Your task to perform on an android device: toggle pop-ups in chrome Image 0: 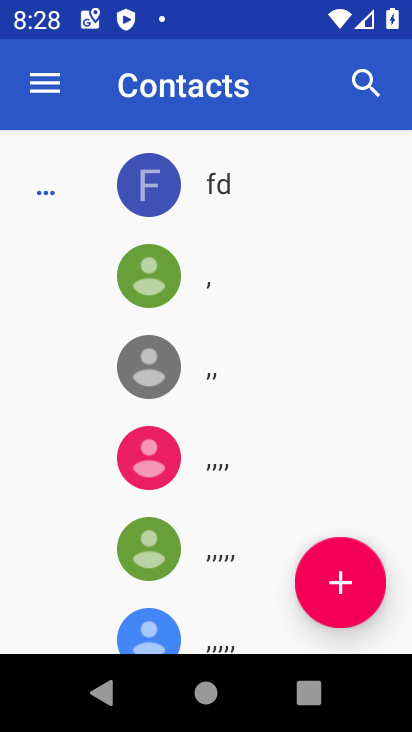
Step 0: press home button
Your task to perform on an android device: toggle pop-ups in chrome Image 1: 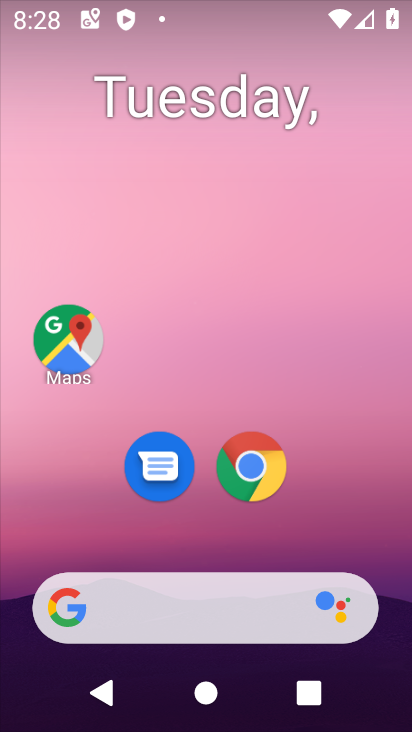
Step 1: click (256, 471)
Your task to perform on an android device: toggle pop-ups in chrome Image 2: 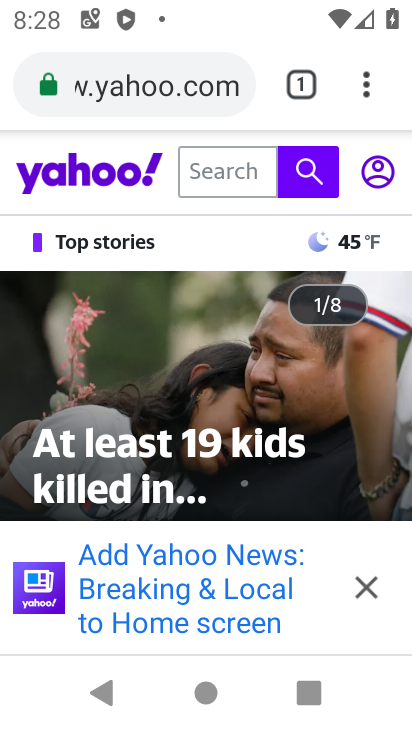
Step 2: click (360, 92)
Your task to perform on an android device: toggle pop-ups in chrome Image 3: 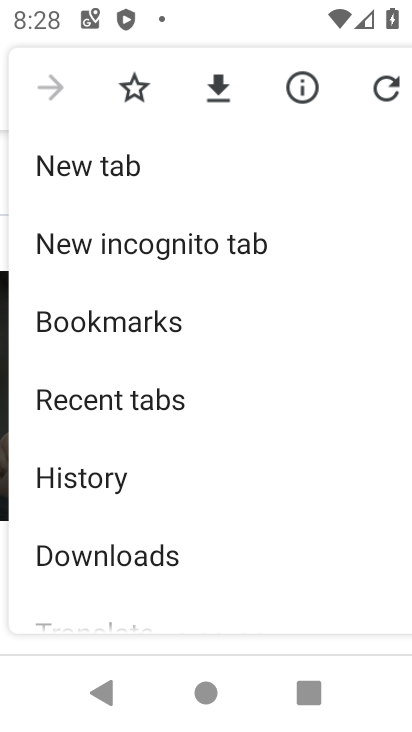
Step 3: drag from (250, 474) to (274, 106)
Your task to perform on an android device: toggle pop-ups in chrome Image 4: 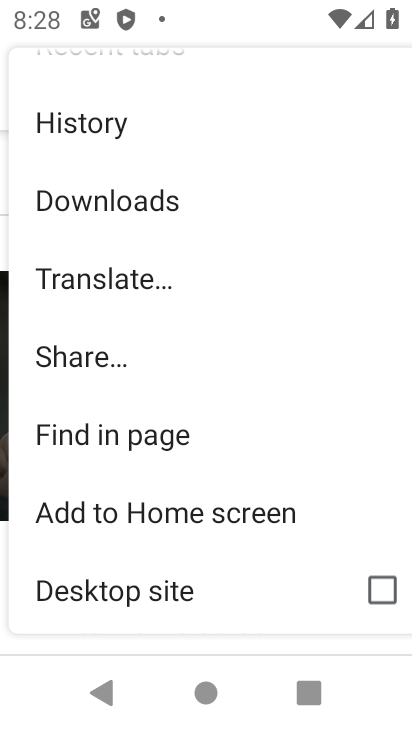
Step 4: drag from (222, 605) to (220, 357)
Your task to perform on an android device: toggle pop-ups in chrome Image 5: 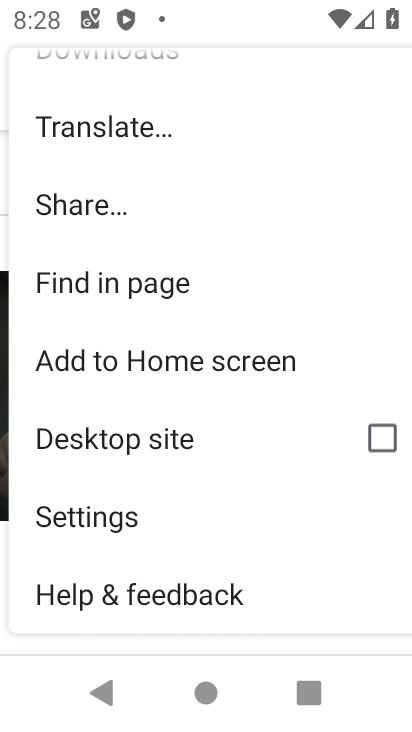
Step 5: click (172, 526)
Your task to perform on an android device: toggle pop-ups in chrome Image 6: 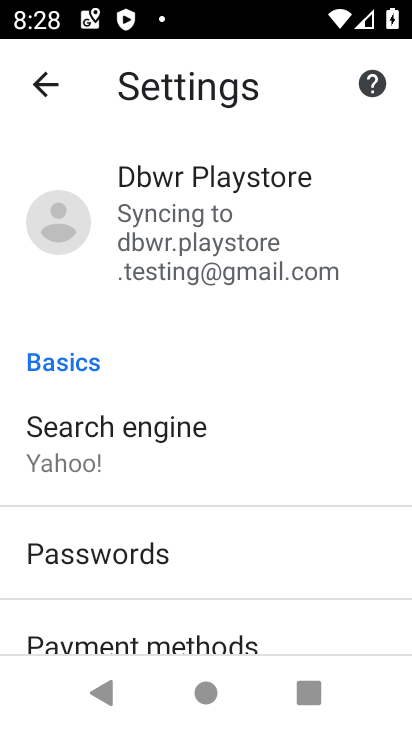
Step 6: drag from (252, 514) to (195, 84)
Your task to perform on an android device: toggle pop-ups in chrome Image 7: 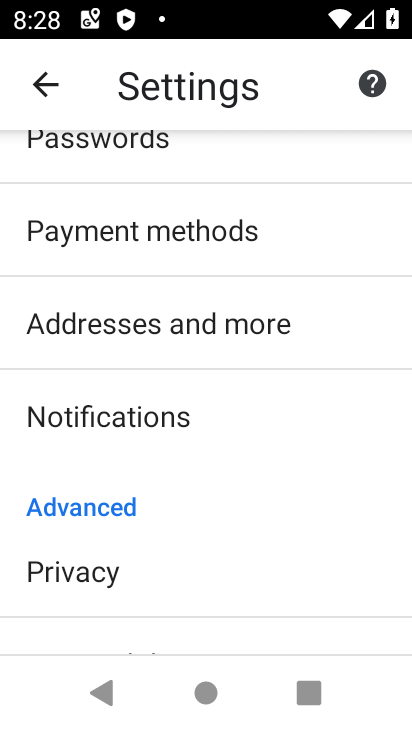
Step 7: drag from (228, 487) to (265, 310)
Your task to perform on an android device: toggle pop-ups in chrome Image 8: 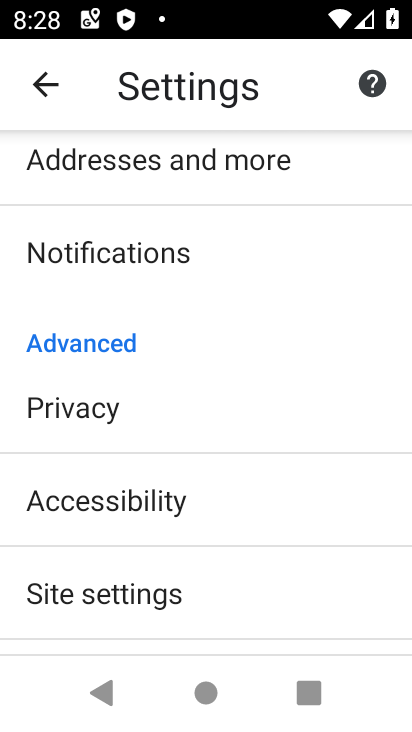
Step 8: drag from (180, 542) to (199, 388)
Your task to perform on an android device: toggle pop-ups in chrome Image 9: 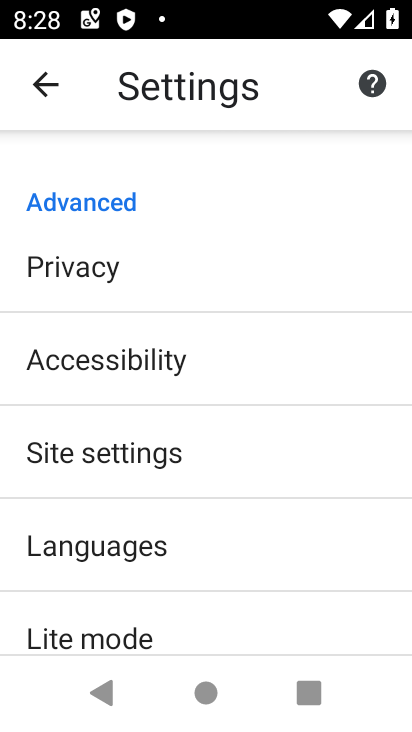
Step 9: click (210, 527)
Your task to perform on an android device: toggle pop-ups in chrome Image 10: 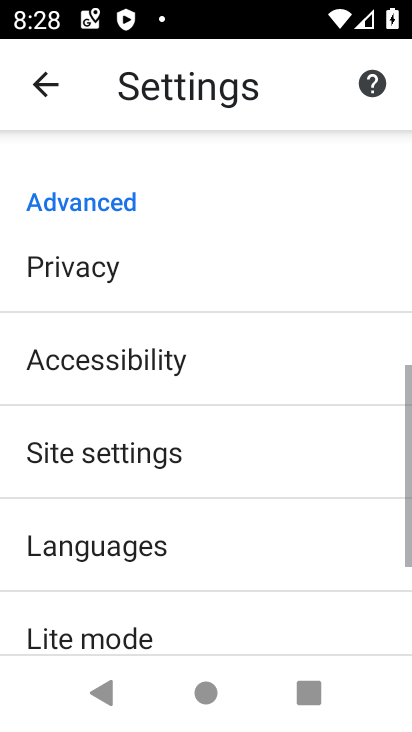
Step 10: click (206, 488)
Your task to perform on an android device: toggle pop-ups in chrome Image 11: 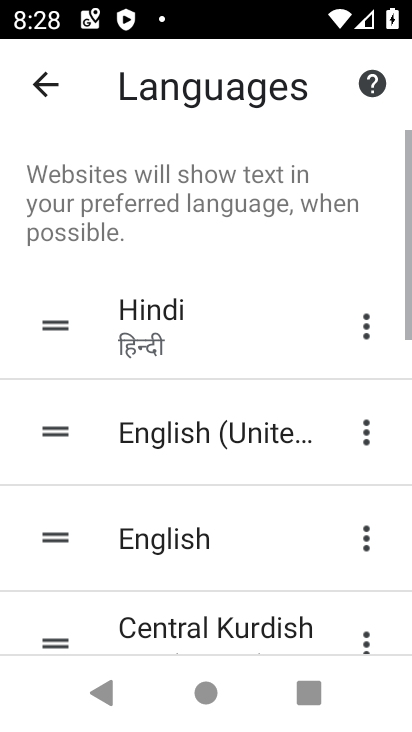
Step 11: click (206, 488)
Your task to perform on an android device: toggle pop-ups in chrome Image 12: 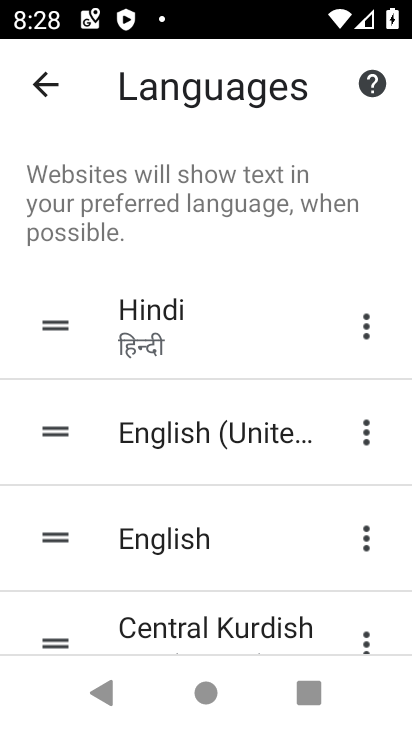
Step 12: click (49, 99)
Your task to perform on an android device: toggle pop-ups in chrome Image 13: 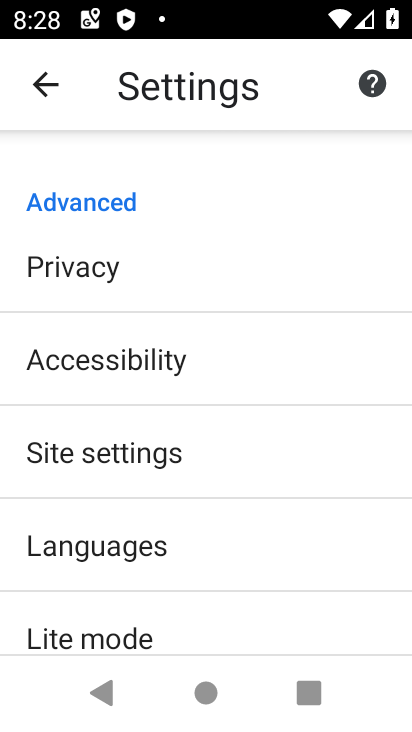
Step 13: click (203, 461)
Your task to perform on an android device: toggle pop-ups in chrome Image 14: 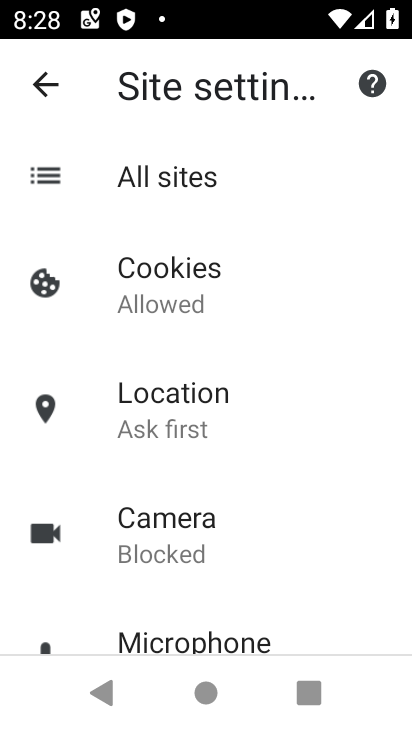
Step 14: drag from (159, 562) to (191, 226)
Your task to perform on an android device: toggle pop-ups in chrome Image 15: 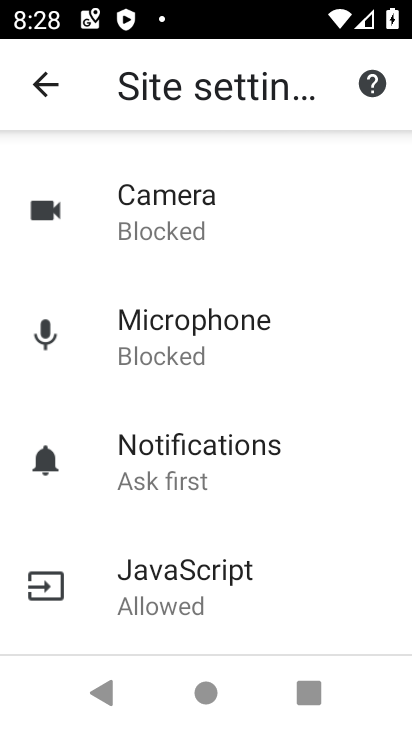
Step 15: drag from (204, 545) to (210, 378)
Your task to perform on an android device: toggle pop-ups in chrome Image 16: 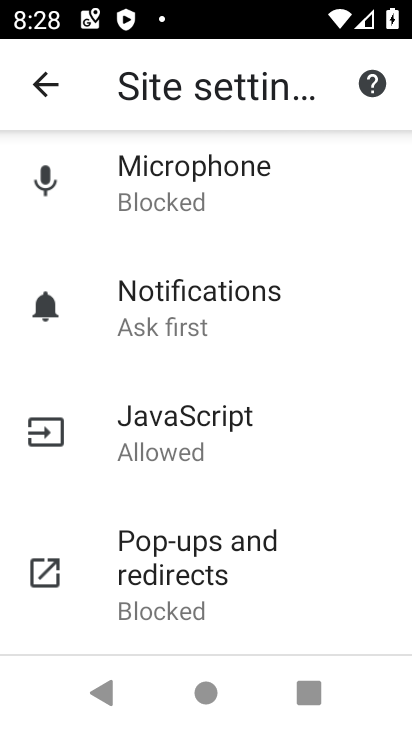
Step 16: click (243, 553)
Your task to perform on an android device: toggle pop-ups in chrome Image 17: 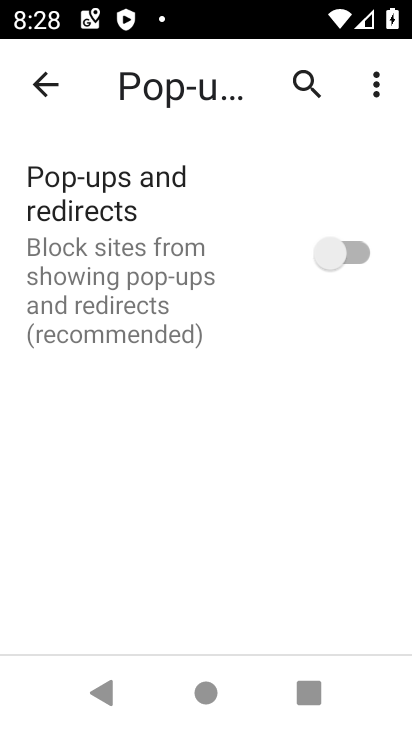
Step 17: click (298, 255)
Your task to perform on an android device: toggle pop-ups in chrome Image 18: 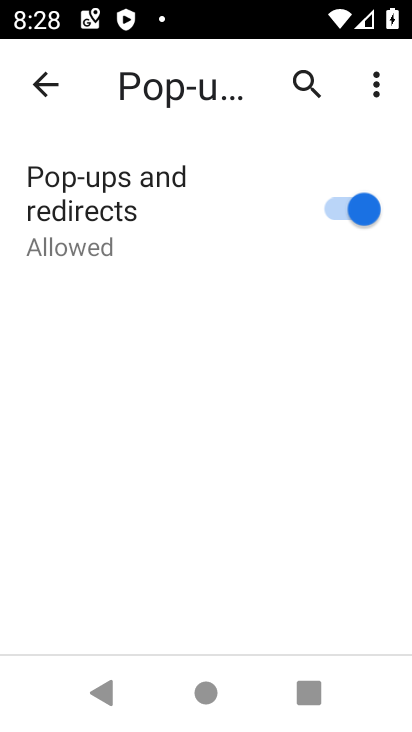
Step 18: task complete